Your task to perform on an android device: Open display settings Image 0: 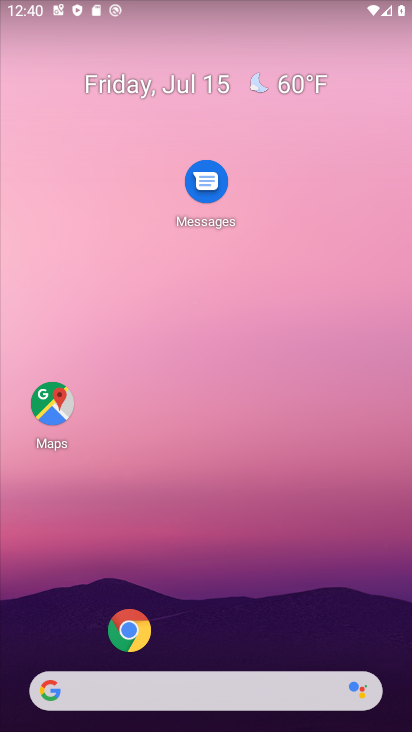
Step 0: drag from (10, 705) to (357, 7)
Your task to perform on an android device: Open display settings Image 1: 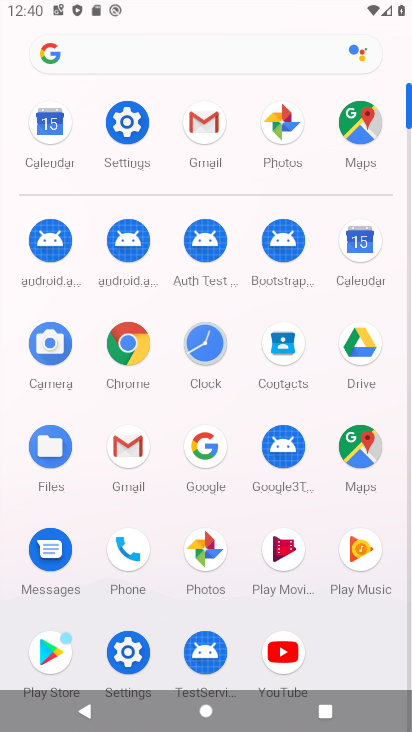
Step 1: click (127, 647)
Your task to perform on an android device: Open display settings Image 2: 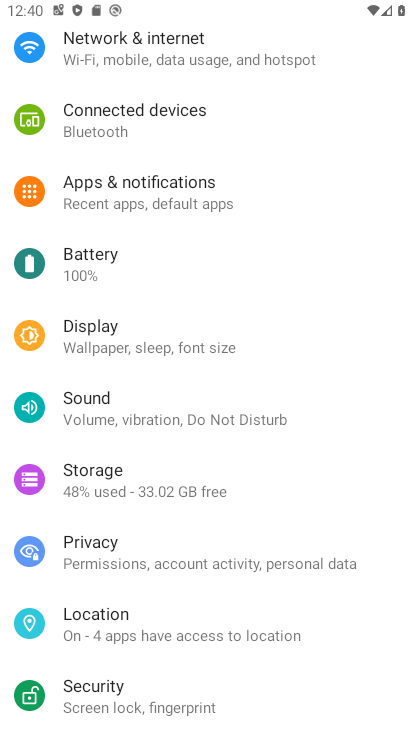
Step 2: click (114, 338)
Your task to perform on an android device: Open display settings Image 3: 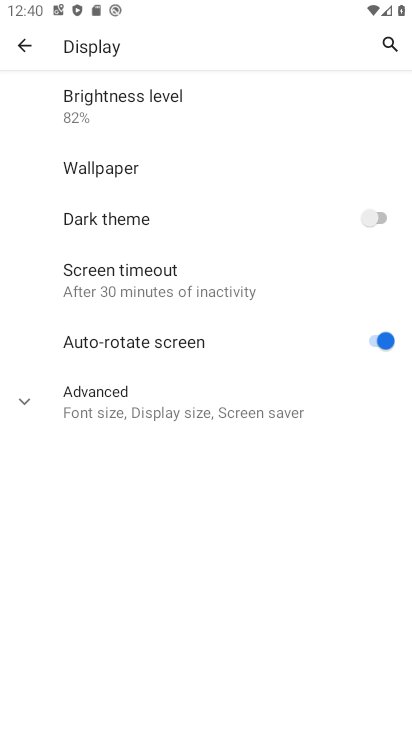
Step 3: task complete